Your task to perform on an android device: Search for Mexican restaurants on Maps Image 0: 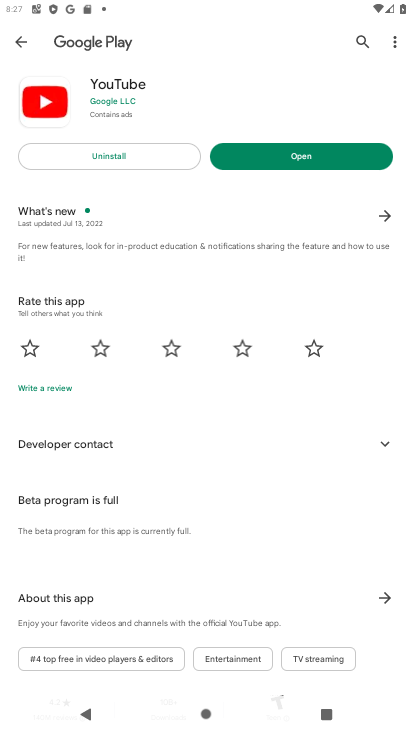
Step 0: press home button
Your task to perform on an android device: Search for Mexican restaurants on Maps Image 1: 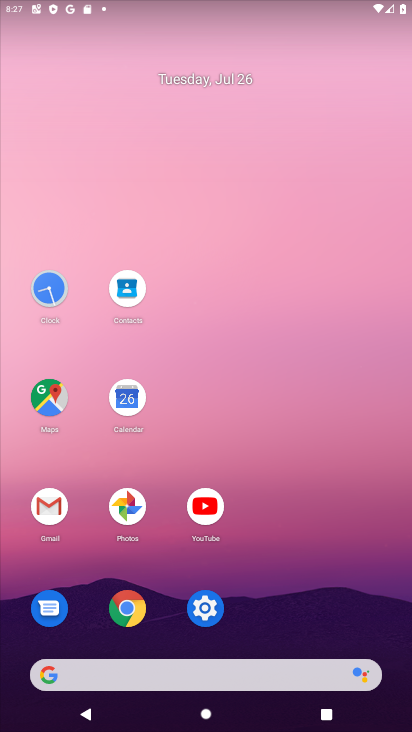
Step 1: click (47, 396)
Your task to perform on an android device: Search for Mexican restaurants on Maps Image 2: 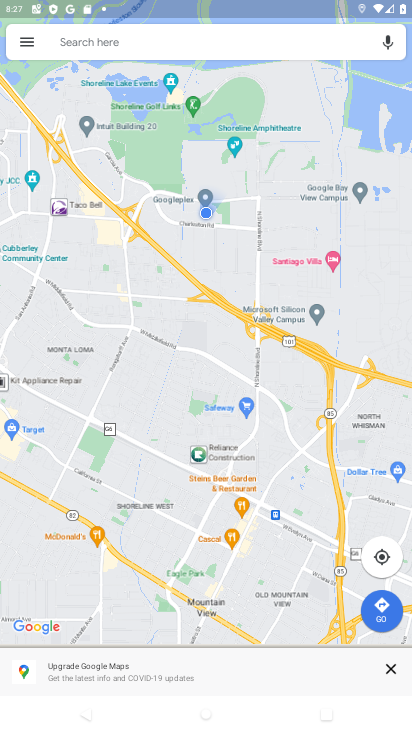
Step 2: click (81, 37)
Your task to perform on an android device: Search for Mexican restaurants on Maps Image 3: 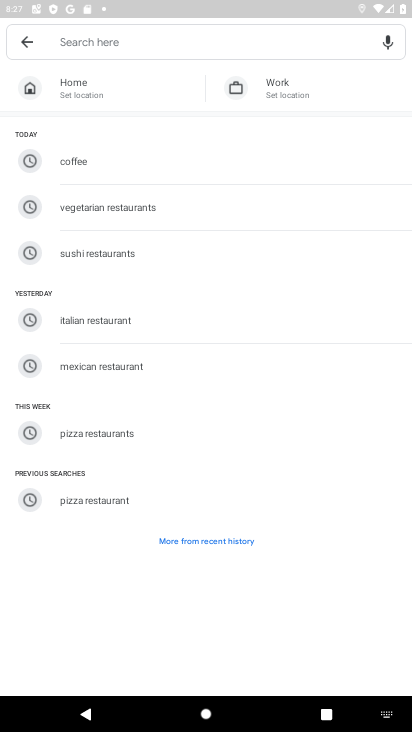
Step 3: click (117, 361)
Your task to perform on an android device: Search for Mexican restaurants on Maps Image 4: 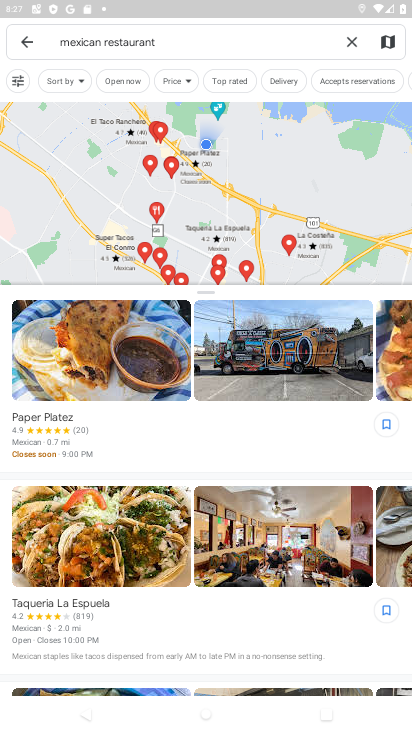
Step 4: task complete